Your task to perform on an android device: Search for sushi restaurants on Maps Image 0: 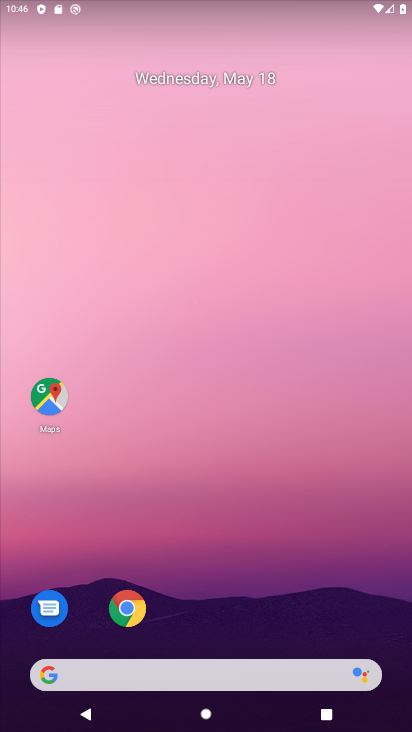
Step 0: press home button
Your task to perform on an android device: Search for sushi restaurants on Maps Image 1: 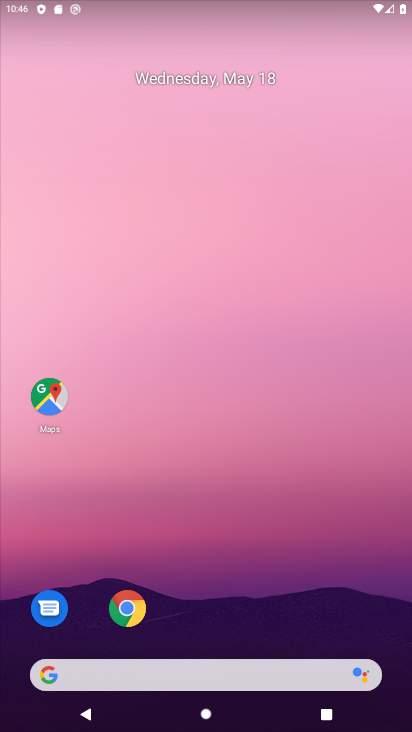
Step 1: click (56, 396)
Your task to perform on an android device: Search for sushi restaurants on Maps Image 2: 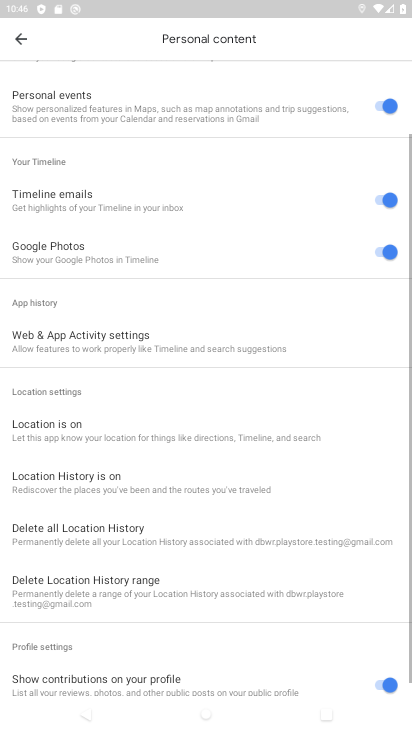
Step 2: click (20, 46)
Your task to perform on an android device: Search for sushi restaurants on Maps Image 3: 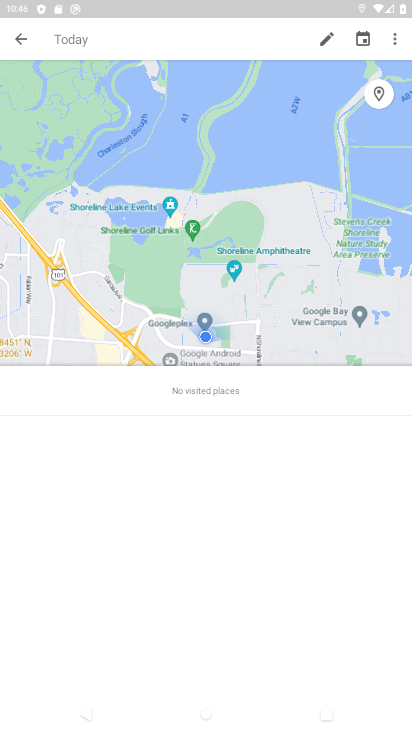
Step 3: click (20, 46)
Your task to perform on an android device: Search for sushi restaurants on Maps Image 4: 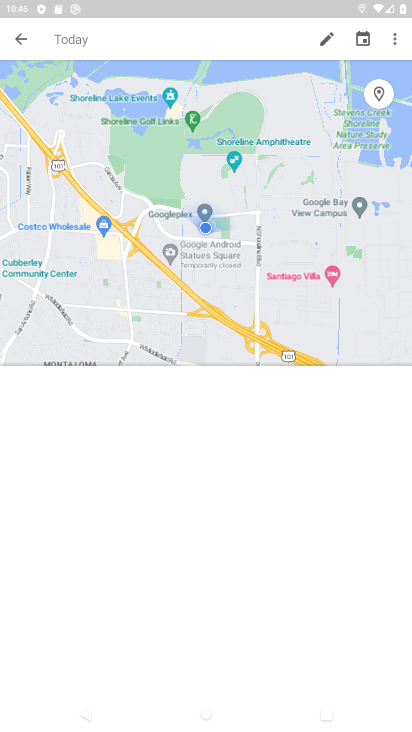
Step 4: click (117, 39)
Your task to perform on an android device: Search for sushi restaurants on Maps Image 5: 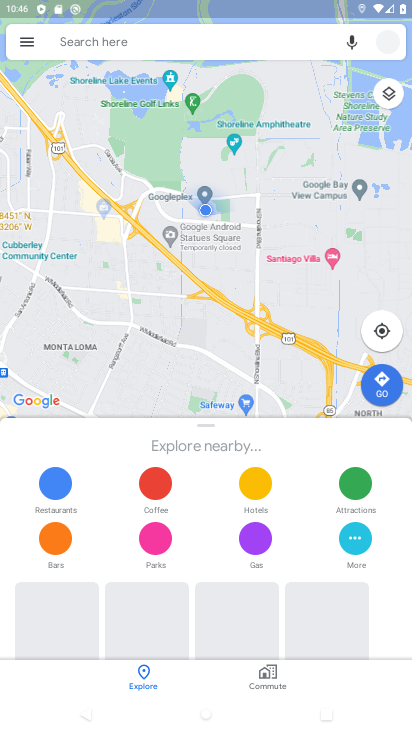
Step 5: click (117, 39)
Your task to perform on an android device: Search for sushi restaurants on Maps Image 6: 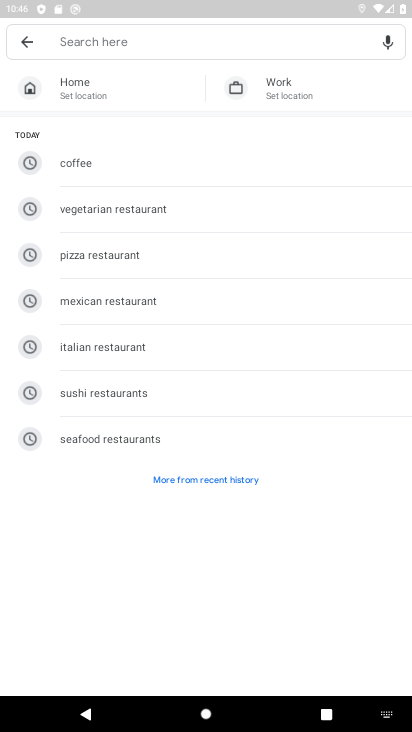
Step 6: type " sushi restaurants"
Your task to perform on an android device: Search for sushi restaurants on Maps Image 7: 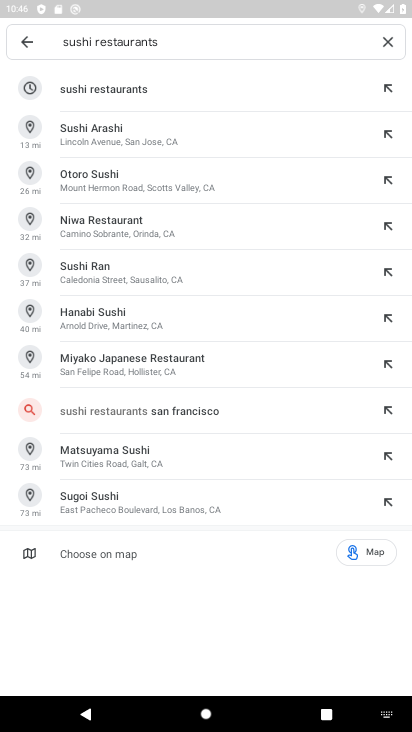
Step 7: click (269, 91)
Your task to perform on an android device: Search for sushi restaurants on Maps Image 8: 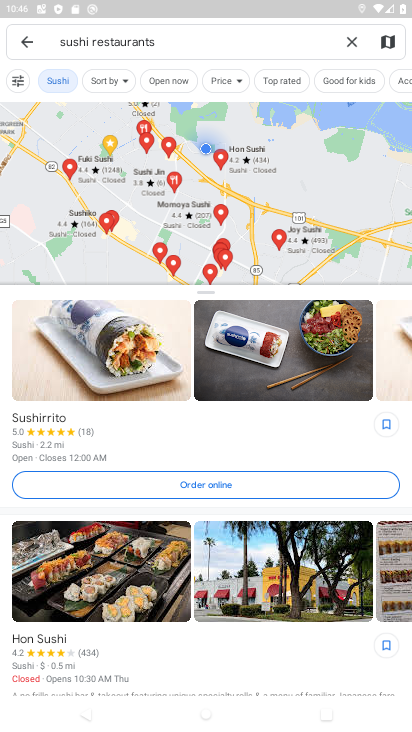
Step 8: task complete